Your task to perform on an android device: What is the news today? Image 0: 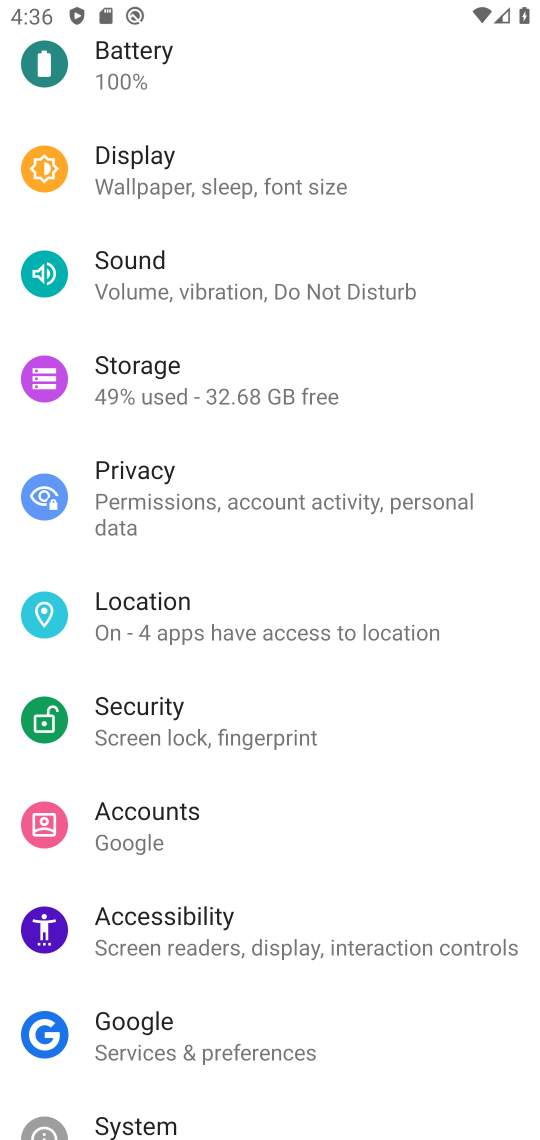
Step 0: press home button
Your task to perform on an android device: What is the news today? Image 1: 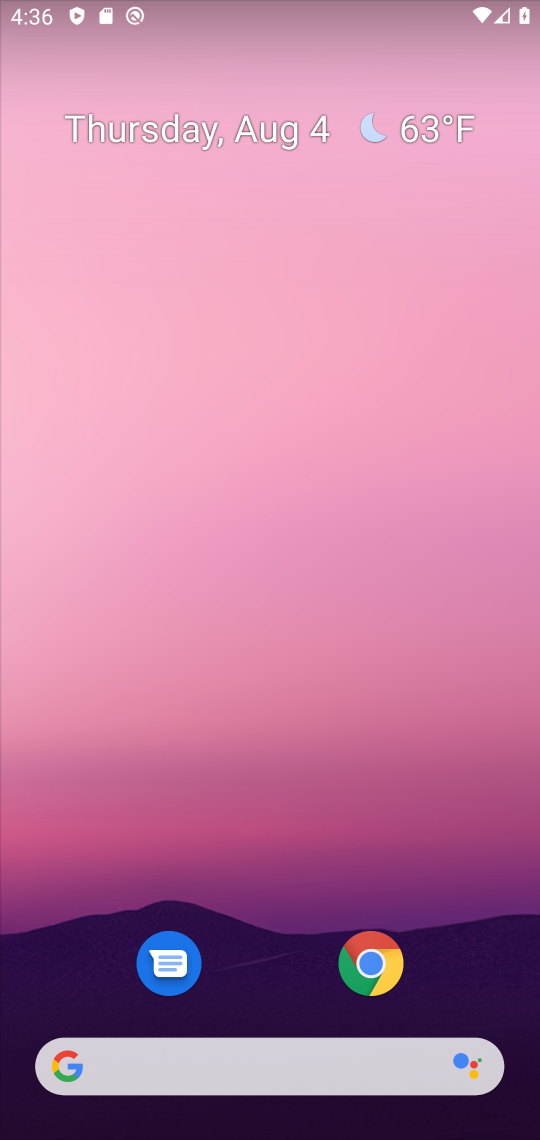
Step 1: drag from (281, 929) to (252, 3)
Your task to perform on an android device: What is the news today? Image 2: 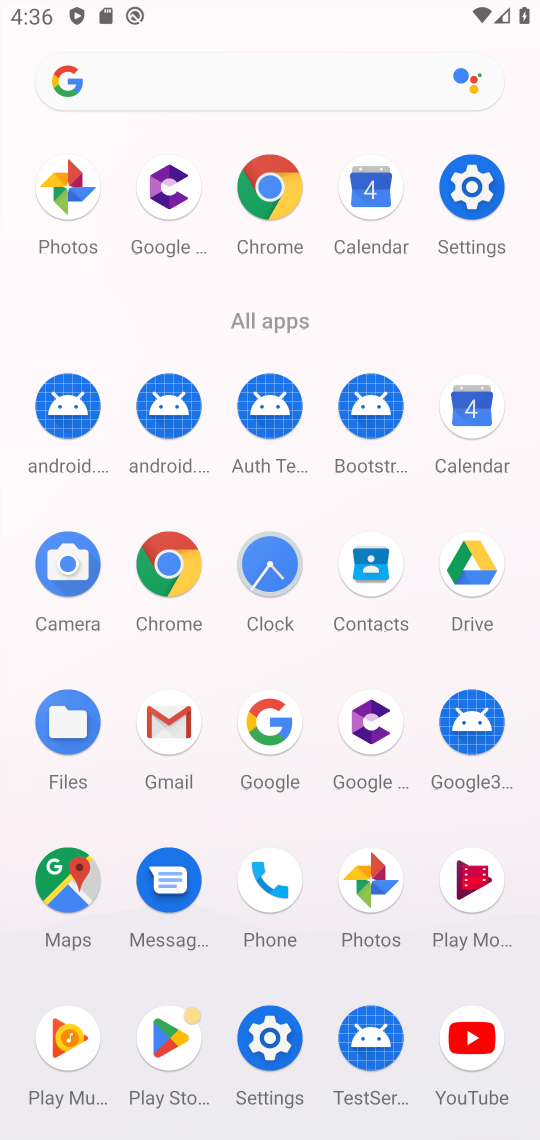
Step 2: click (260, 734)
Your task to perform on an android device: What is the news today? Image 3: 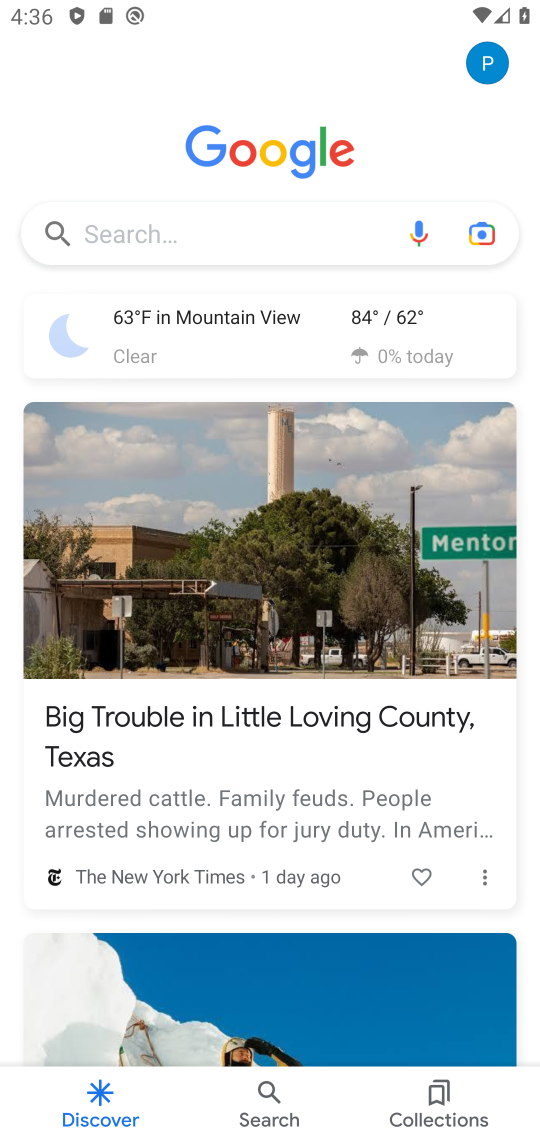
Step 3: task complete